Your task to perform on an android device: Open Google Maps and go to "Timeline" Image 0: 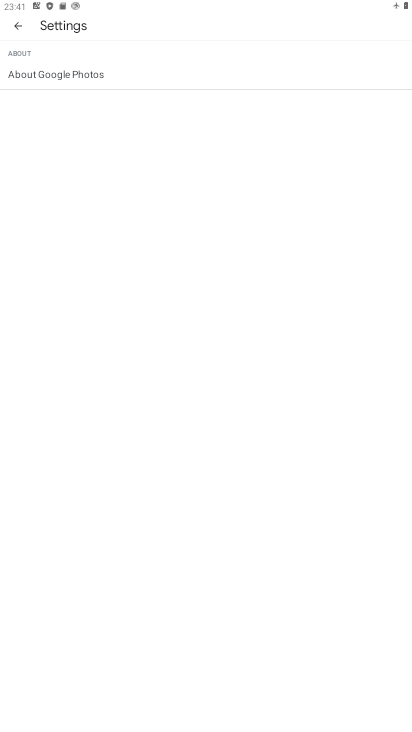
Step 0: press home button
Your task to perform on an android device: Open Google Maps and go to "Timeline" Image 1: 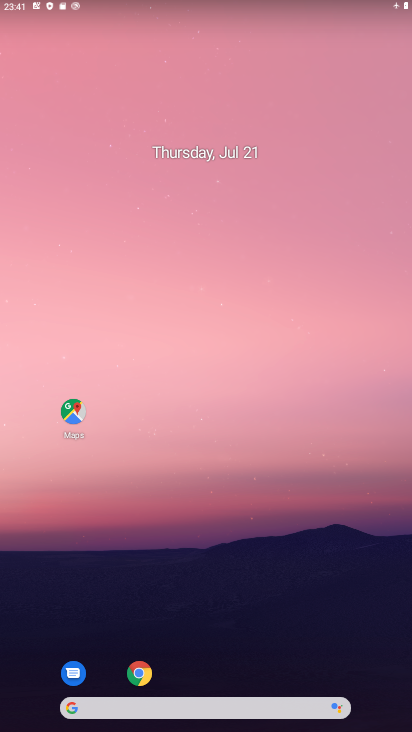
Step 1: click (85, 421)
Your task to perform on an android device: Open Google Maps and go to "Timeline" Image 2: 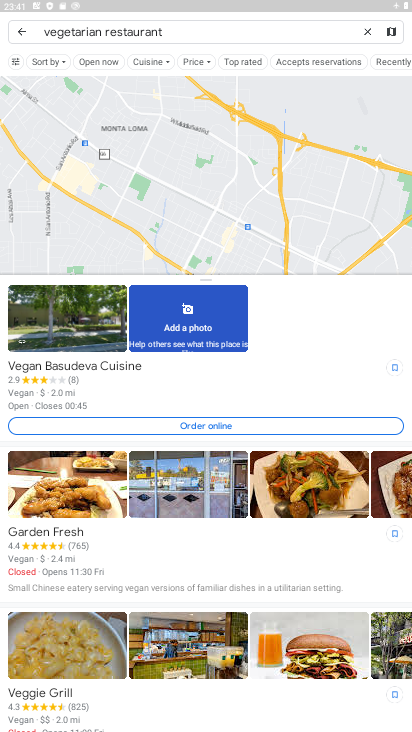
Step 2: click (17, 37)
Your task to perform on an android device: Open Google Maps and go to "Timeline" Image 3: 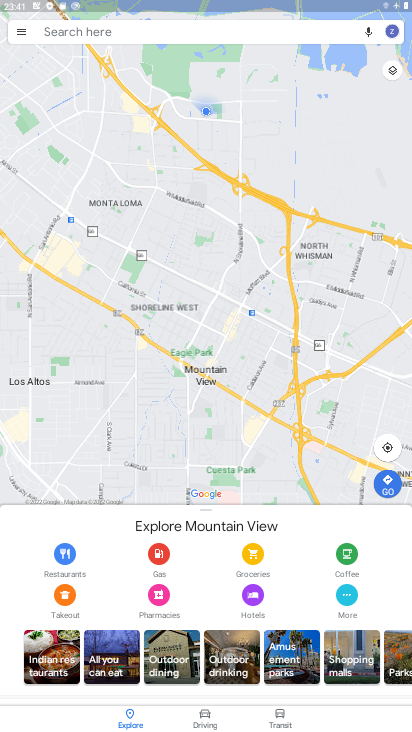
Step 3: click (17, 37)
Your task to perform on an android device: Open Google Maps and go to "Timeline" Image 4: 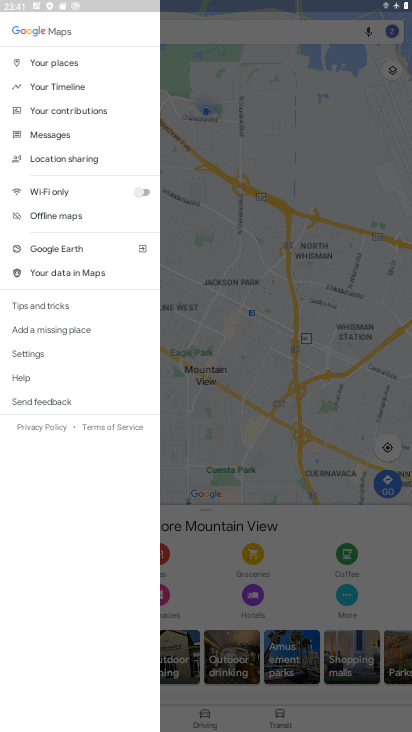
Step 4: click (48, 90)
Your task to perform on an android device: Open Google Maps and go to "Timeline" Image 5: 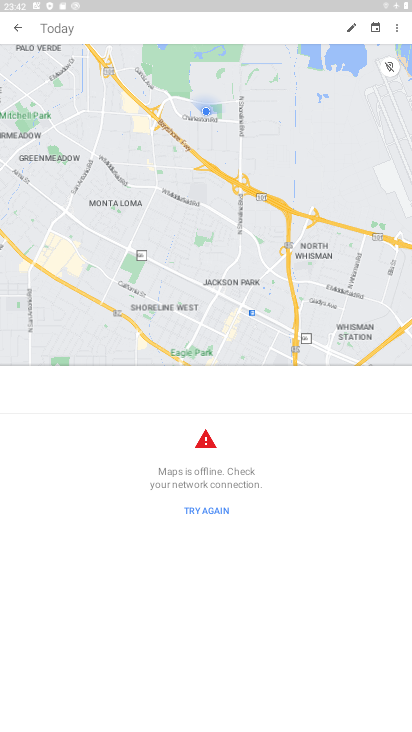
Step 5: task complete